Your task to perform on an android device: Show me productivity apps on the Play Store Image 0: 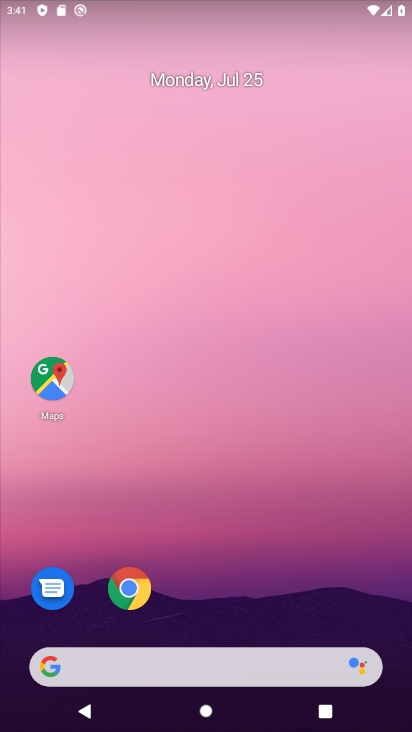
Step 0: drag from (169, 602) to (60, 429)
Your task to perform on an android device: Show me productivity apps on the Play Store Image 1: 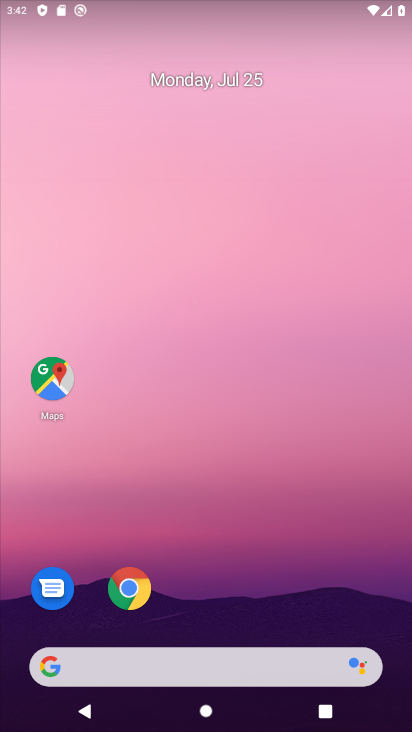
Step 1: drag from (273, 373) to (316, 54)
Your task to perform on an android device: Show me productivity apps on the Play Store Image 2: 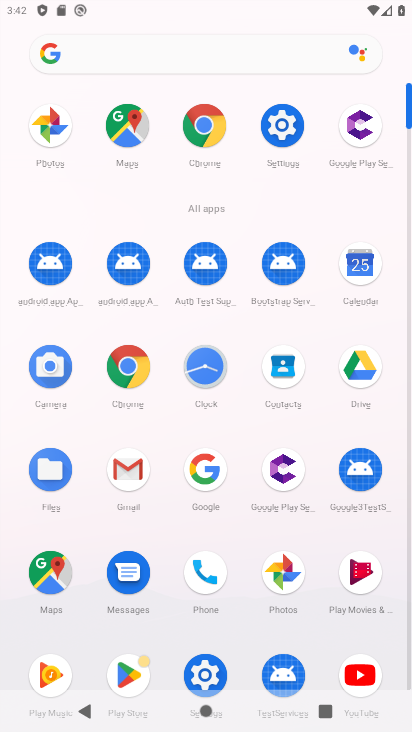
Step 2: click (143, 685)
Your task to perform on an android device: Show me productivity apps on the Play Store Image 3: 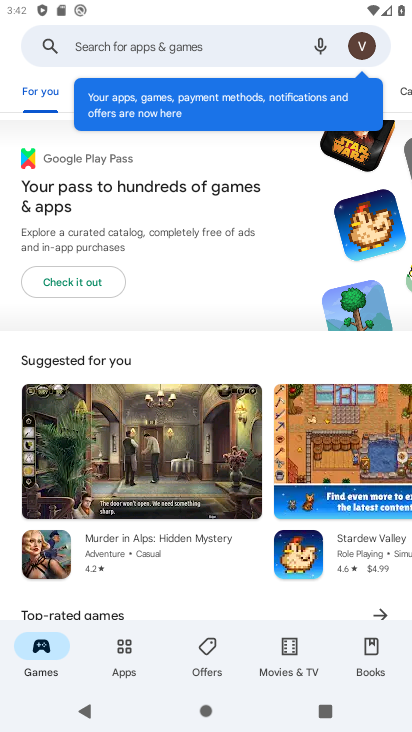
Step 3: click (128, 649)
Your task to perform on an android device: Show me productivity apps on the Play Store Image 4: 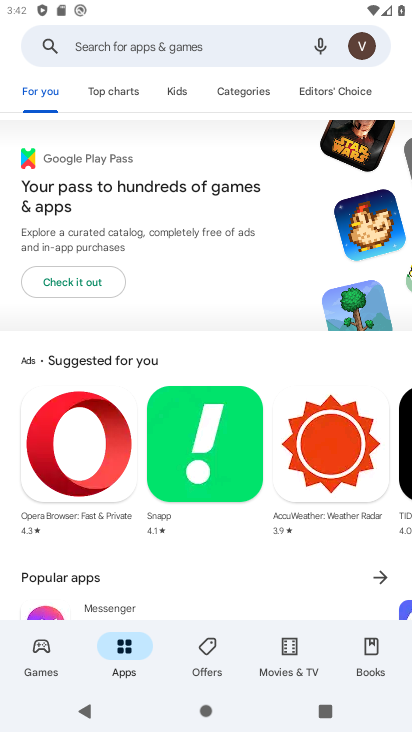
Step 4: click (254, 88)
Your task to perform on an android device: Show me productivity apps on the Play Store Image 5: 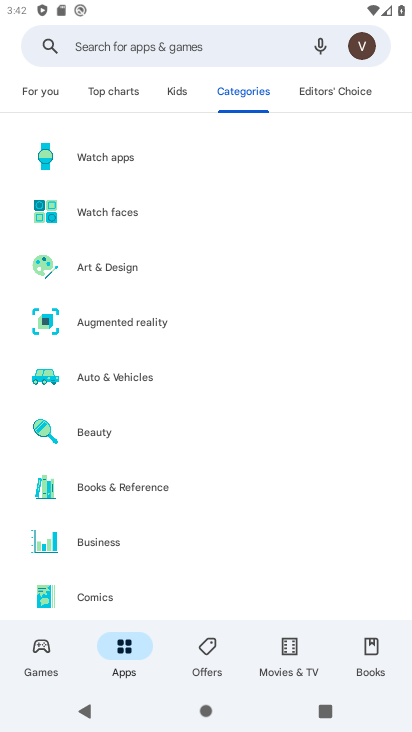
Step 5: drag from (96, 560) to (143, 170)
Your task to perform on an android device: Show me productivity apps on the Play Store Image 6: 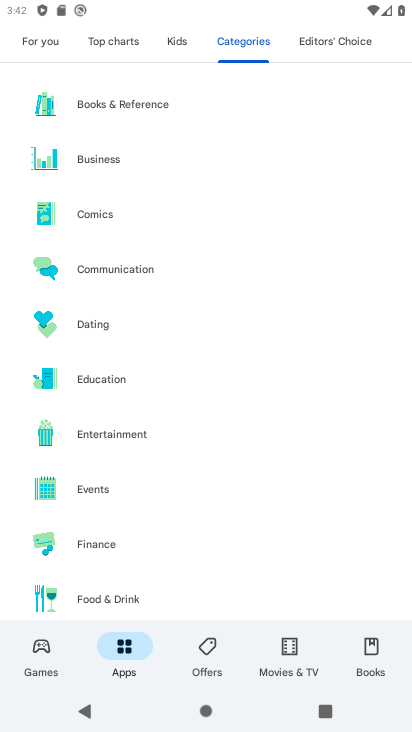
Step 6: drag from (139, 551) to (93, 25)
Your task to perform on an android device: Show me productivity apps on the Play Store Image 7: 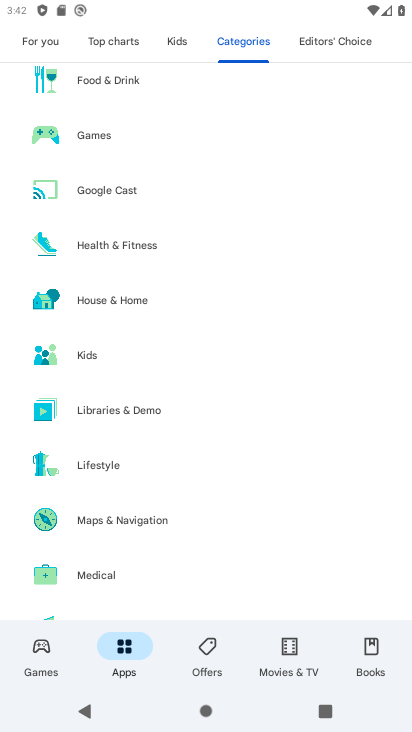
Step 7: drag from (88, 614) to (193, 48)
Your task to perform on an android device: Show me productivity apps on the Play Store Image 8: 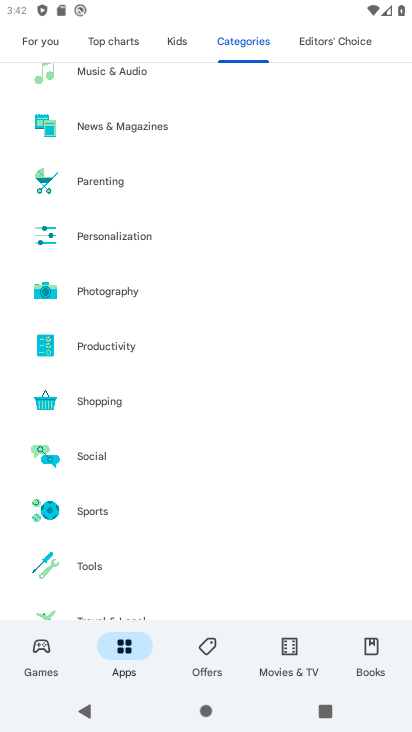
Step 8: click (116, 355)
Your task to perform on an android device: Show me productivity apps on the Play Store Image 9: 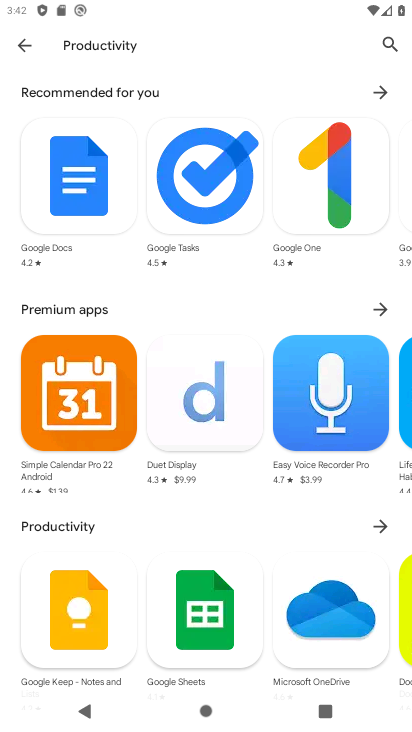
Step 9: task complete